Your task to perform on an android device: change the upload size in google photos Image 0: 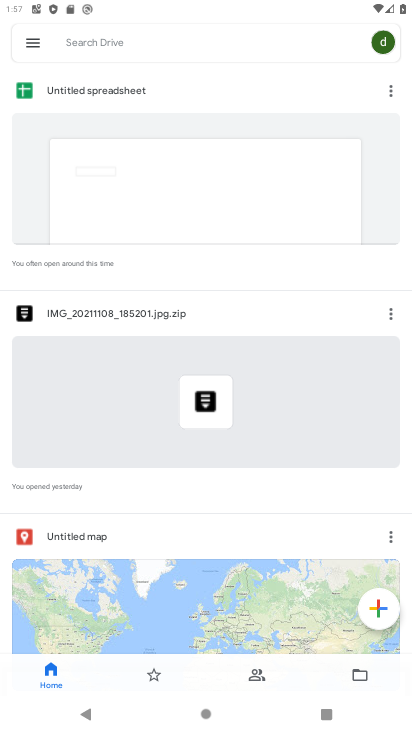
Step 0: press home button
Your task to perform on an android device: change the upload size in google photos Image 1: 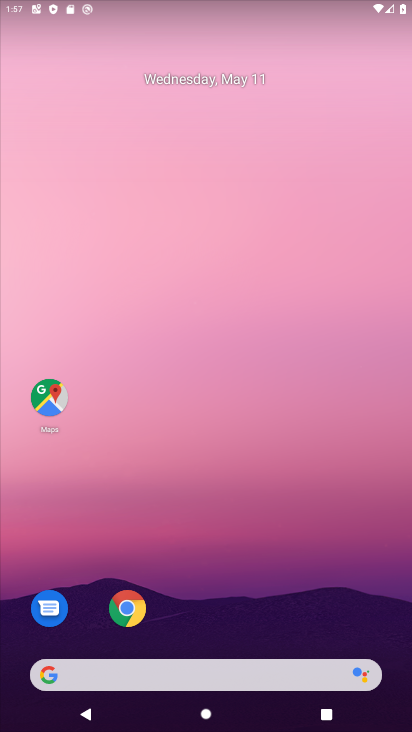
Step 1: drag from (313, 615) to (380, 264)
Your task to perform on an android device: change the upload size in google photos Image 2: 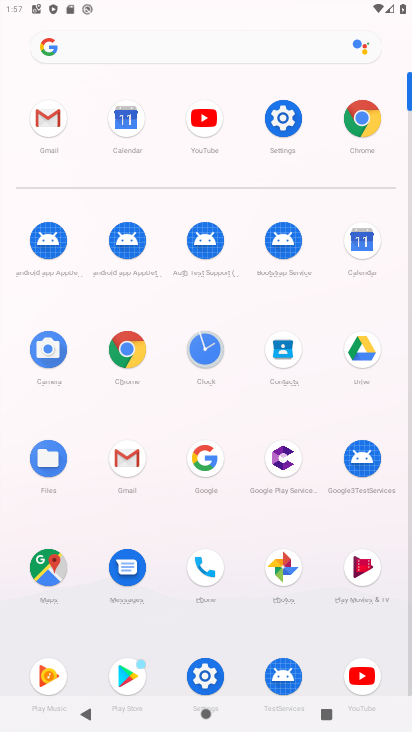
Step 2: click (284, 553)
Your task to perform on an android device: change the upload size in google photos Image 3: 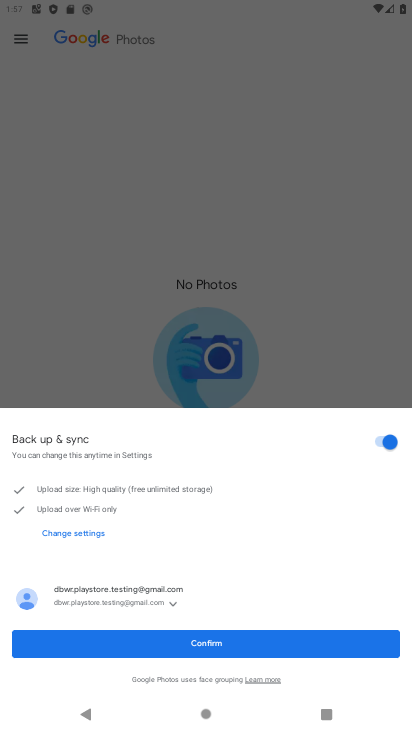
Step 3: click (297, 160)
Your task to perform on an android device: change the upload size in google photos Image 4: 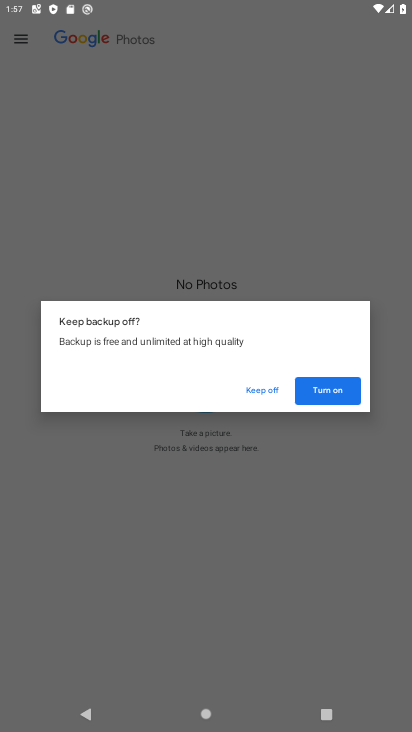
Step 4: click (343, 144)
Your task to perform on an android device: change the upload size in google photos Image 5: 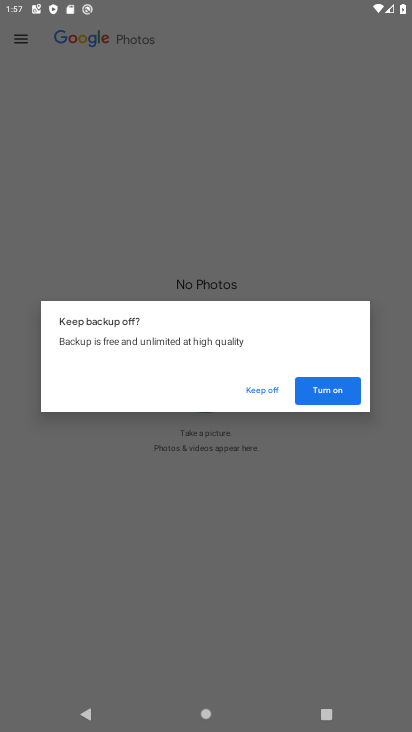
Step 5: click (345, 144)
Your task to perform on an android device: change the upload size in google photos Image 6: 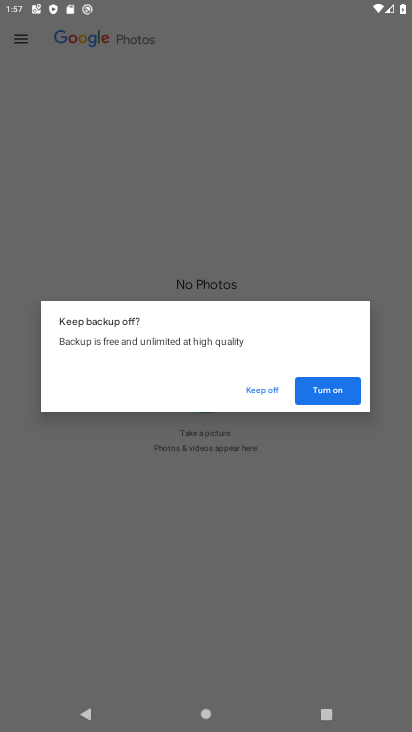
Step 6: click (261, 385)
Your task to perform on an android device: change the upload size in google photos Image 7: 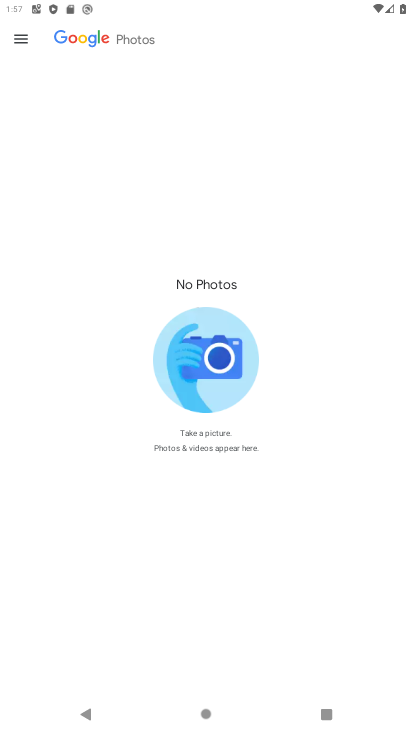
Step 7: click (19, 40)
Your task to perform on an android device: change the upload size in google photos Image 8: 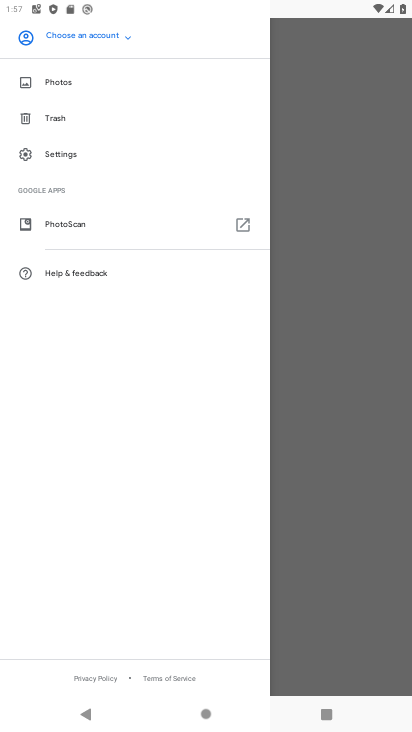
Step 8: task complete